Your task to perform on an android device: make emails show in primary in the gmail app Image 0: 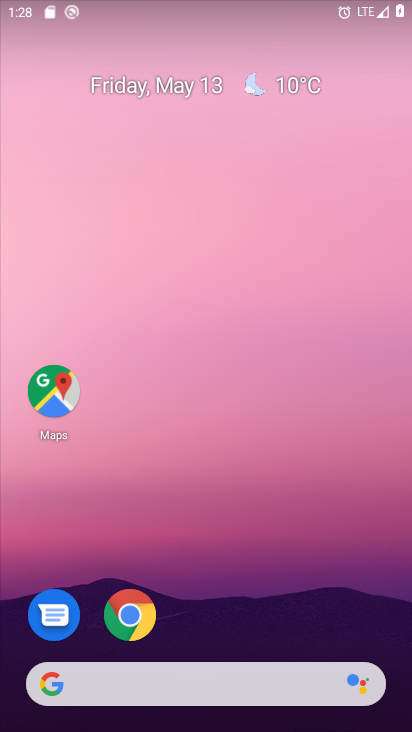
Step 0: drag from (242, 572) to (229, 103)
Your task to perform on an android device: make emails show in primary in the gmail app Image 1: 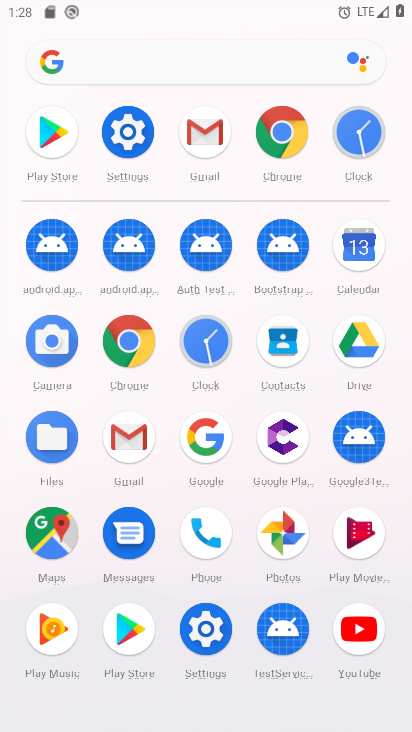
Step 1: click (208, 125)
Your task to perform on an android device: make emails show in primary in the gmail app Image 2: 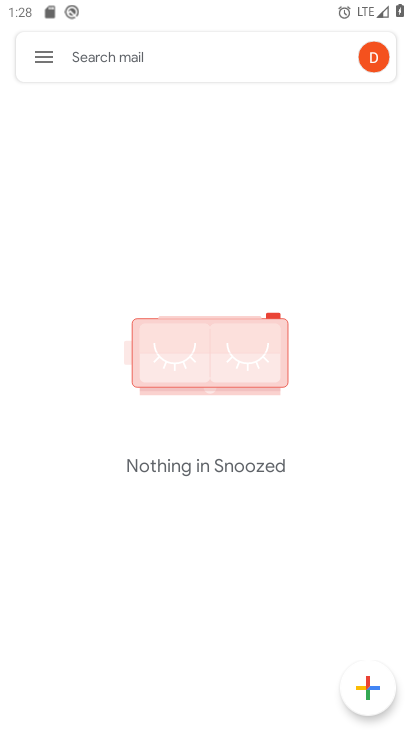
Step 2: click (38, 53)
Your task to perform on an android device: make emails show in primary in the gmail app Image 3: 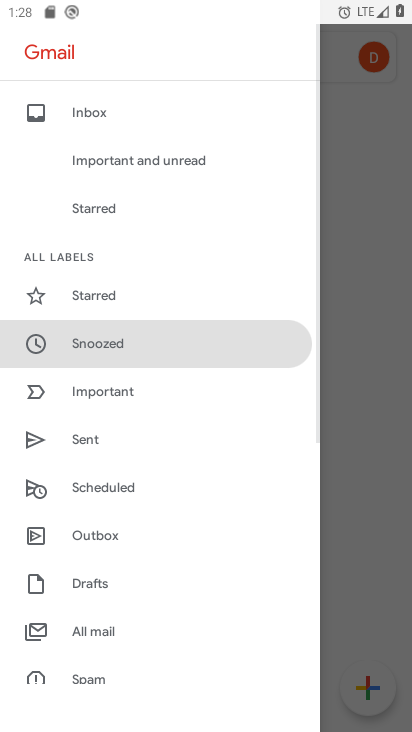
Step 3: drag from (131, 635) to (191, 177)
Your task to perform on an android device: make emails show in primary in the gmail app Image 4: 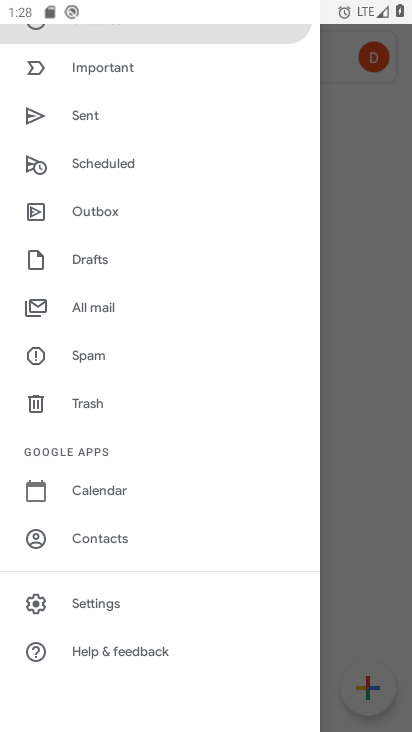
Step 4: click (102, 597)
Your task to perform on an android device: make emails show in primary in the gmail app Image 5: 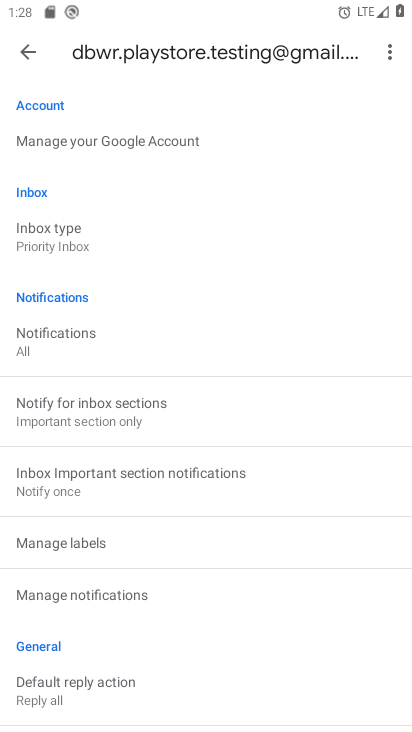
Step 5: click (75, 239)
Your task to perform on an android device: make emails show in primary in the gmail app Image 6: 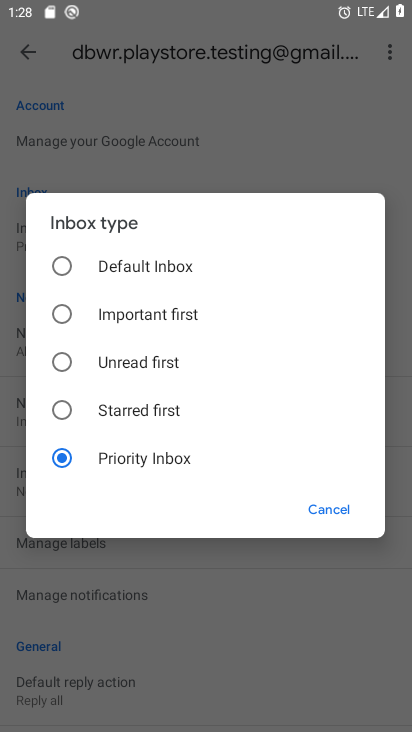
Step 6: click (67, 265)
Your task to perform on an android device: make emails show in primary in the gmail app Image 7: 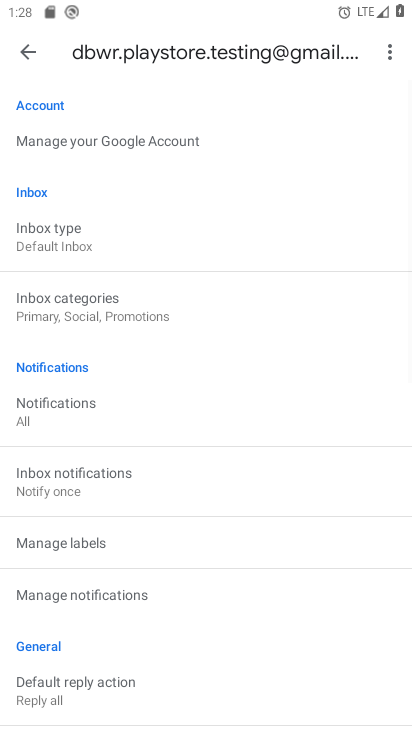
Step 7: click (73, 309)
Your task to perform on an android device: make emails show in primary in the gmail app Image 8: 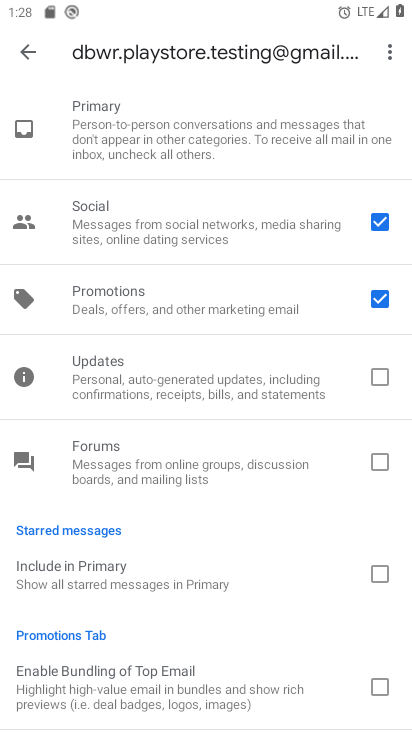
Step 8: click (383, 287)
Your task to perform on an android device: make emails show in primary in the gmail app Image 9: 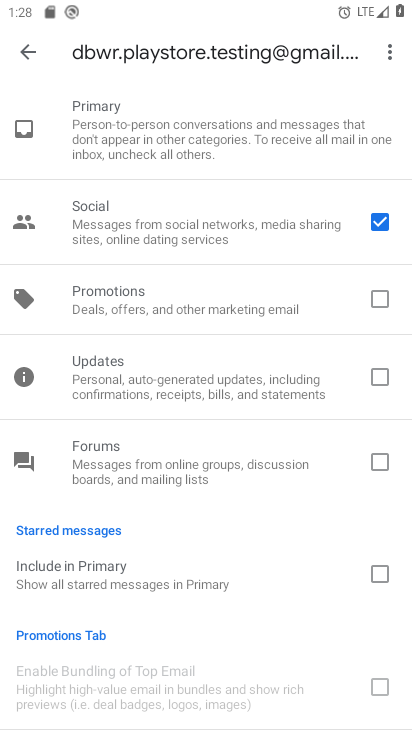
Step 9: click (381, 215)
Your task to perform on an android device: make emails show in primary in the gmail app Image 10: 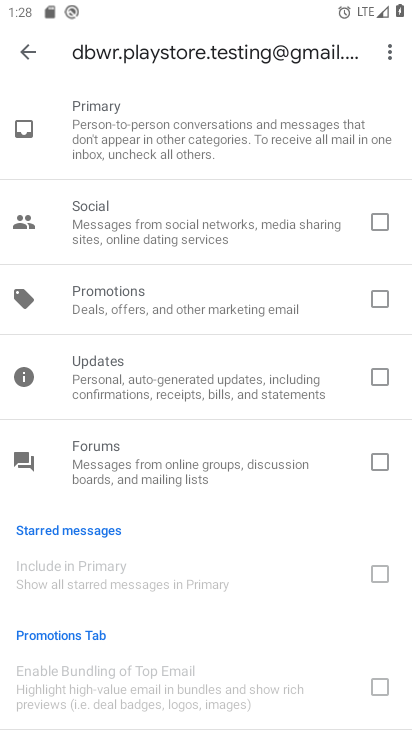
Step 10: task complete